Your task to perform on an android device: Open my contact list Image 0: 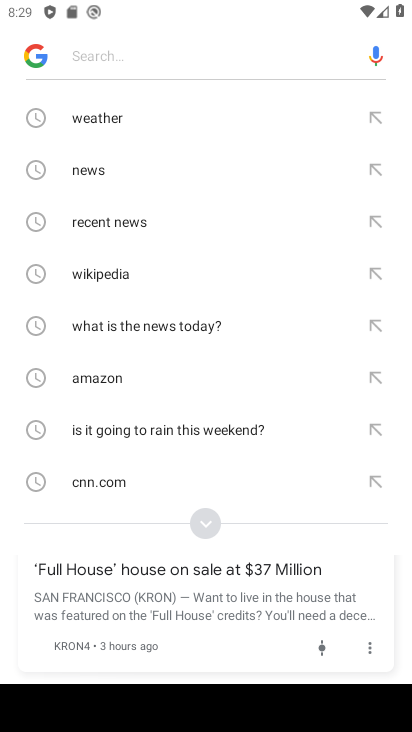
Step 0: press home button
Your task to perform on an android device: Open my contact list Image 1: 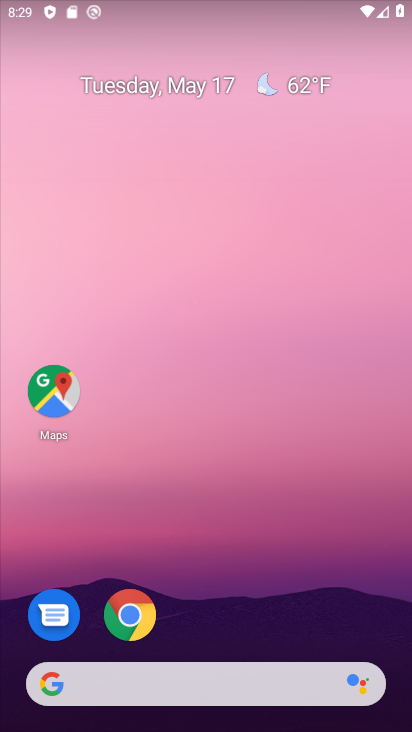
Step 1: drag from (220, 562) to (233, 63)
Your task to perform on an android device: Open my contact list Image 2: 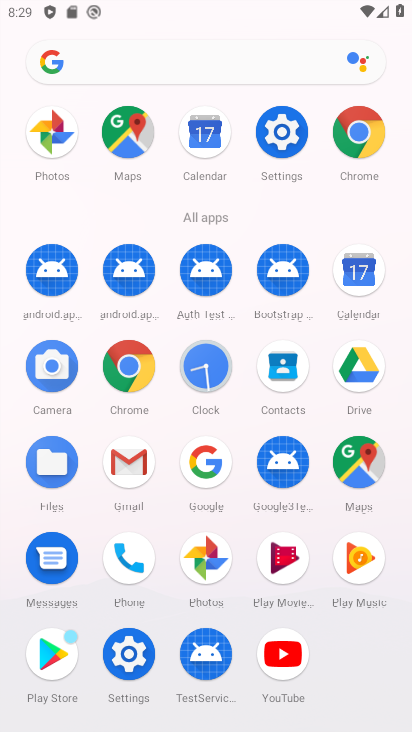
Step 2: click (287, 370)
Your task to perform on an android device: Open my contact list Image 3: 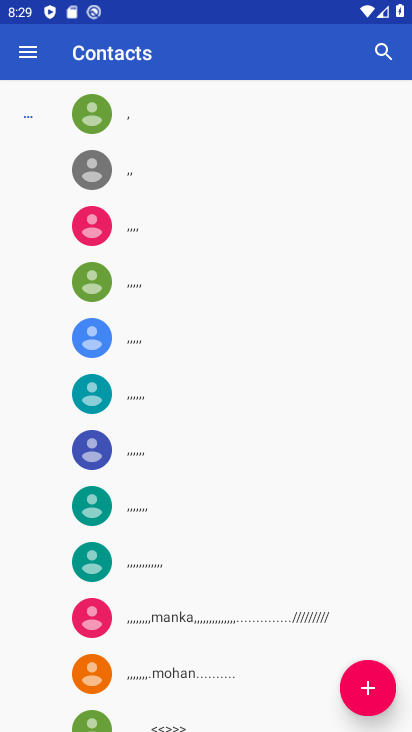
Step 3: task complete